Your task to perform on an android device: Open wifi settings Image 0: 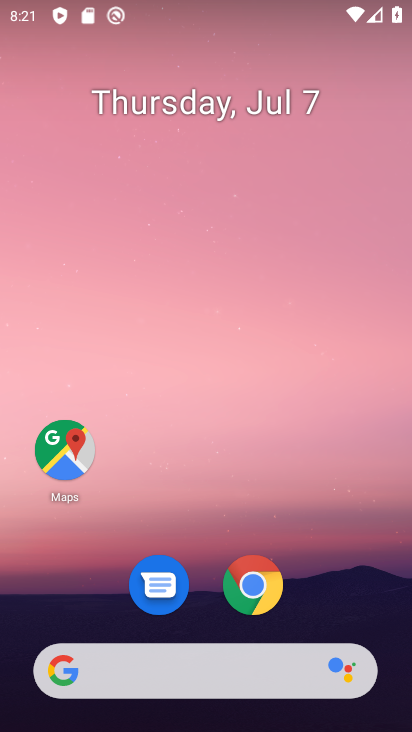
Step 0: drag from (290, 492) to (303, 32)
Your task to perform on an android device: Open wifi settings Image 1: 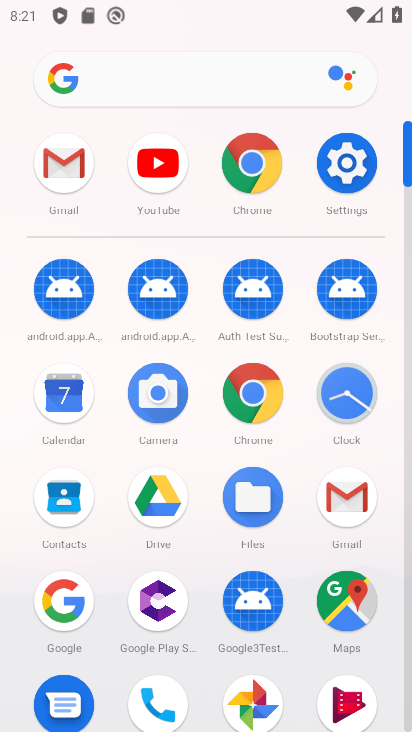
Step 1: click (346, 171)
Your task to perform on an android device: Open wifi settings Image 2: 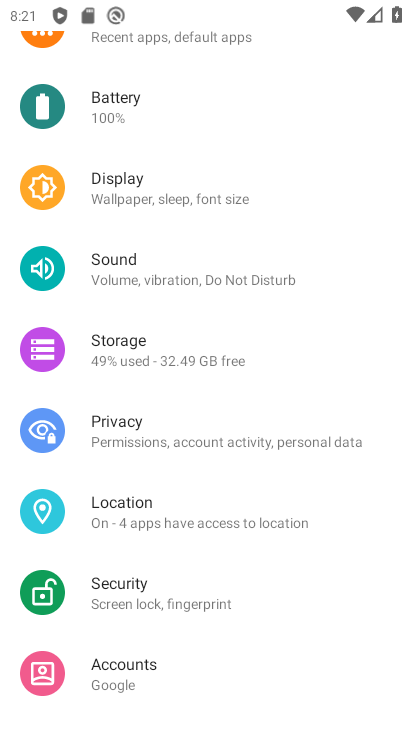
Step 2: drag from (202, 177) to (239, 606)
Your task to perform on an android device: Open wifi settings Image 3: 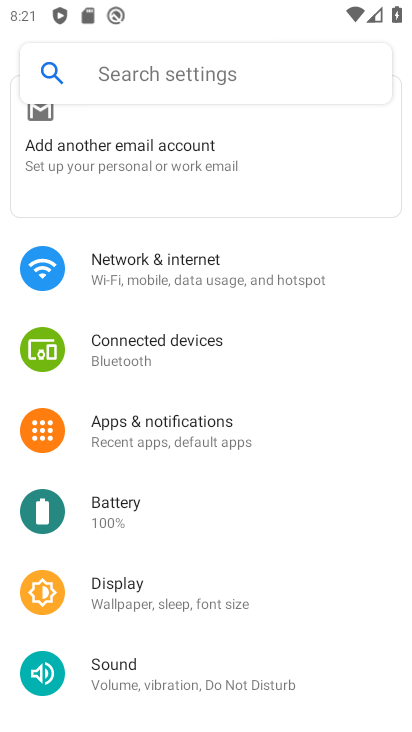
Step 3: click (187, 270)
Your task to perform on an android device: Open wifi settings Image 4: 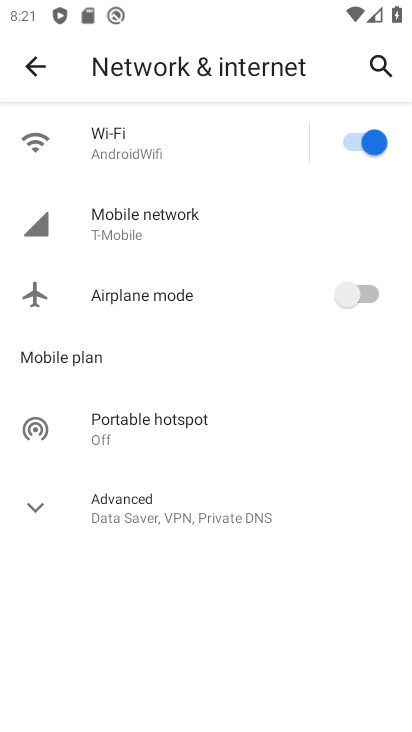
Step 4: click (136, 133)
Your task to perform on an android device: Open wifi settings Image 5: 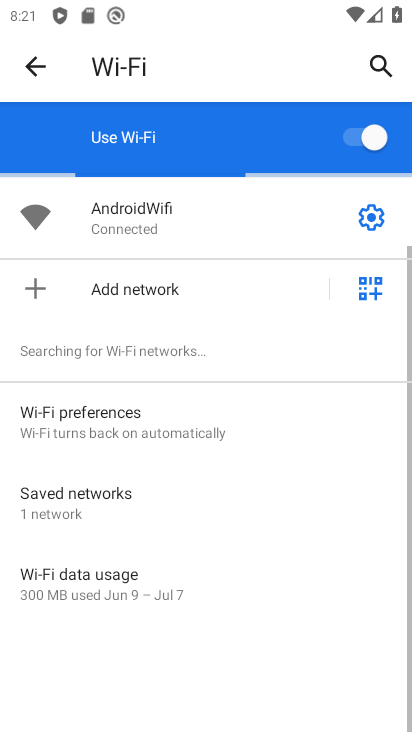
Step 5: task complete